Your task to perform on an android device: set the timer Image 0: 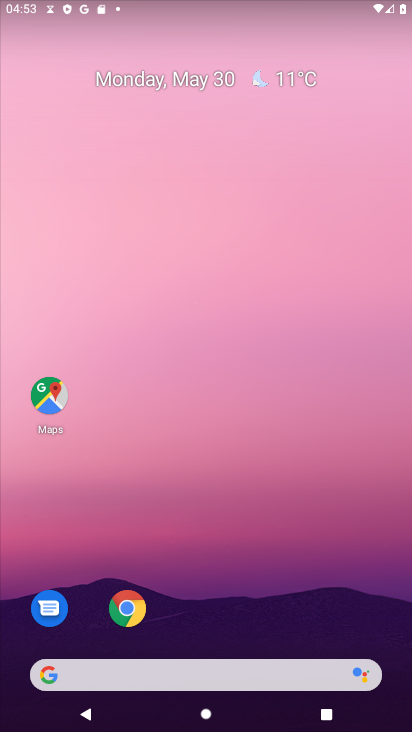
Step 0: drag from (227, 650) to (197, 293)
Your task to perform on an android device: set the timer Image 1: 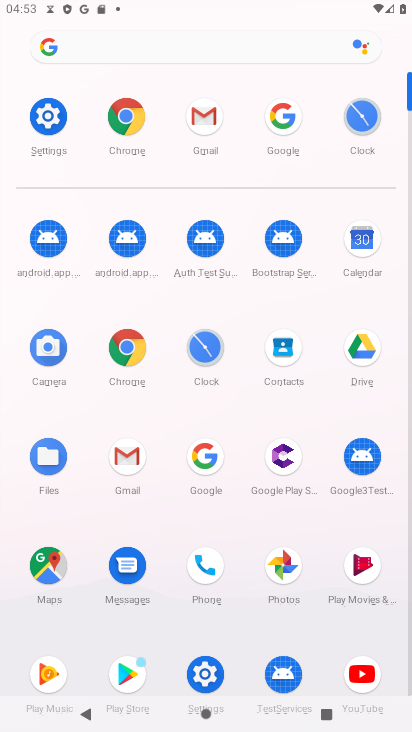
Step 1: click (194, 344)
Your task to perform on an android device: set the timer Image 2: 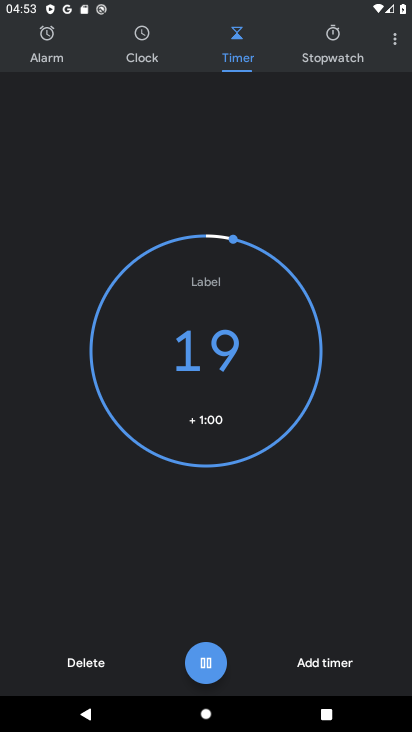
Step 2: click (205, 666)
Your task to perform on an android device: set the timer Image 3: 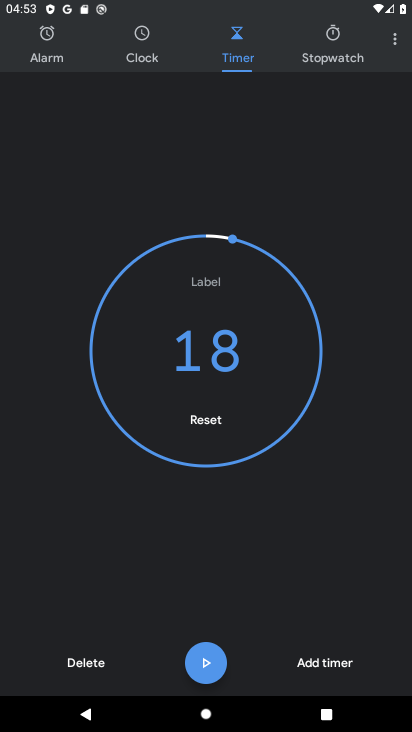
Step 3: click (207, 422)
Your task to perform on an android device: set the timer Image 4: 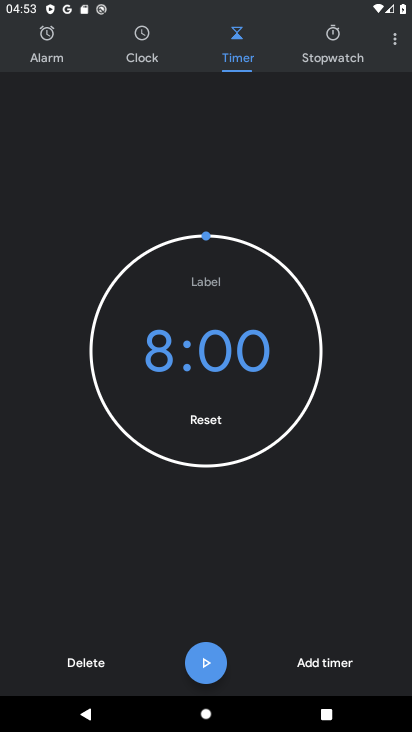
Step 4: task complete